Your task to perform on an android device: check out phone information Image 0: 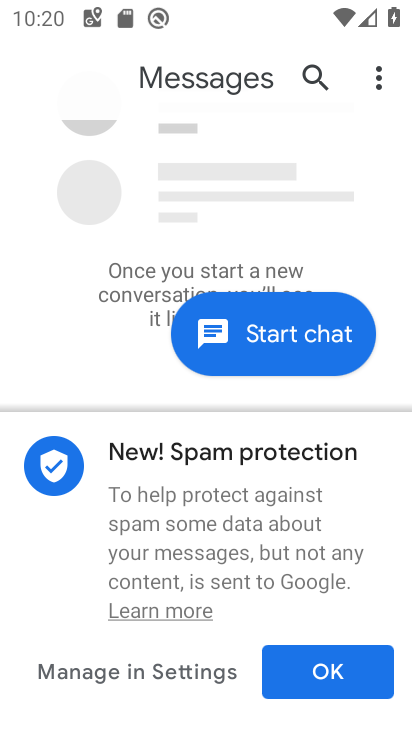
Step 0: press home button
Your task to perform on an android device: check out phone information Image 1: 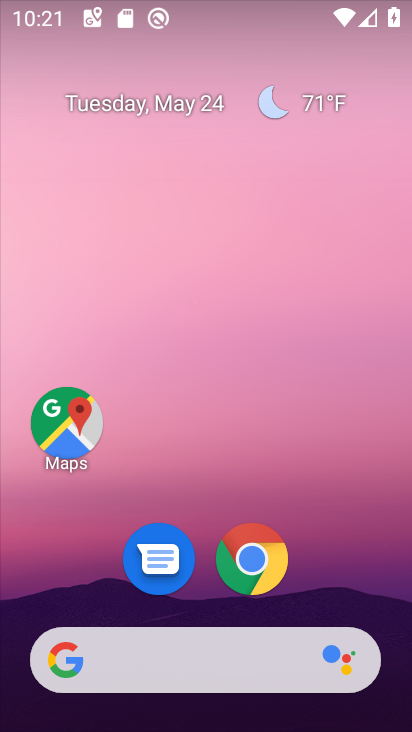
Step 1: drag from (389, 626) to (260, 77)
Your task to perform on an android device: check out phone information Image 2: 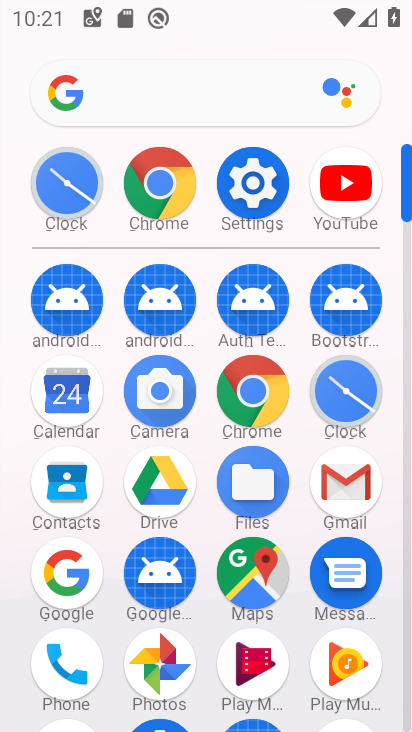
Step 2: click (260, 210)
Your task to perform on an android device: check out phone information Image 3: 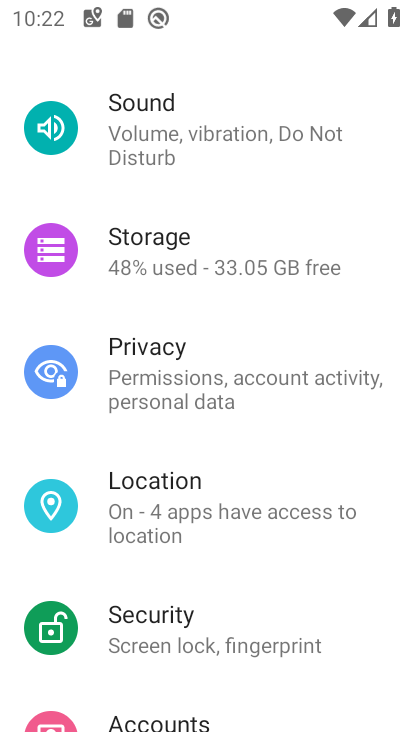
Step 3: task complete